Your task to perform on an android device: check the backup settings in the google photos Image 0: 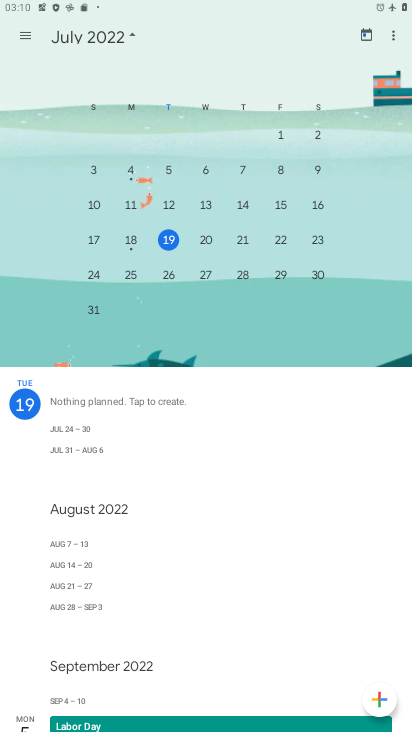
Step 0: press home button
Your task to perform on an android device: check the backup settings in the google photos Image 1: 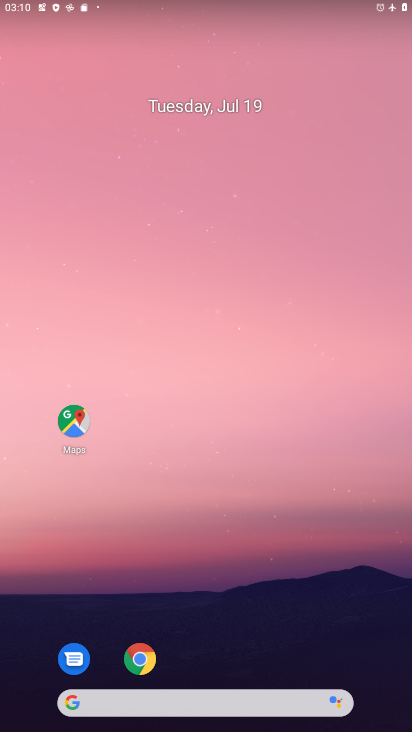
Step 1: drag from (277, 655) to (248, 90)
Your task to perform on an android device: check the backup settings in the google photos Image 2: 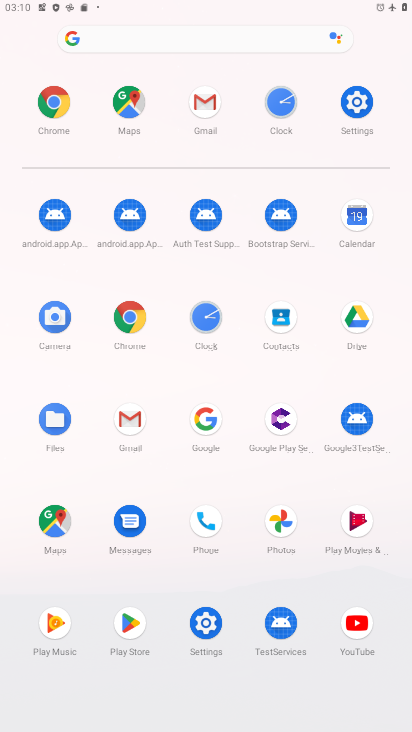
Step 2: click (281, 539)
Your task to perform on an android device: check the backup settings in the google photos Image 3: 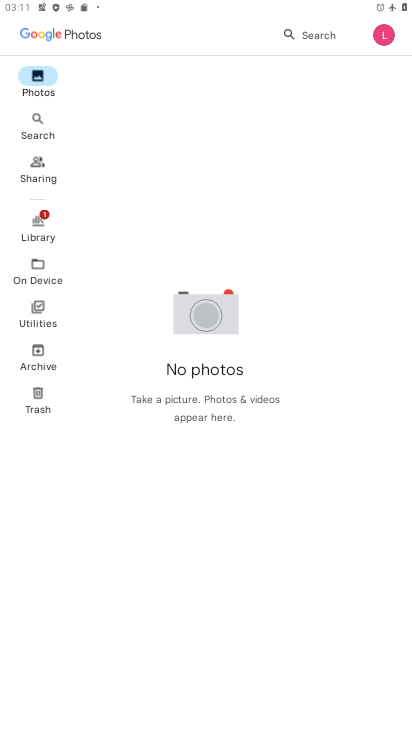
Step 3: click (373, 30)
Your task to perform on an android device: check the backup settings in the google photos Image 4: 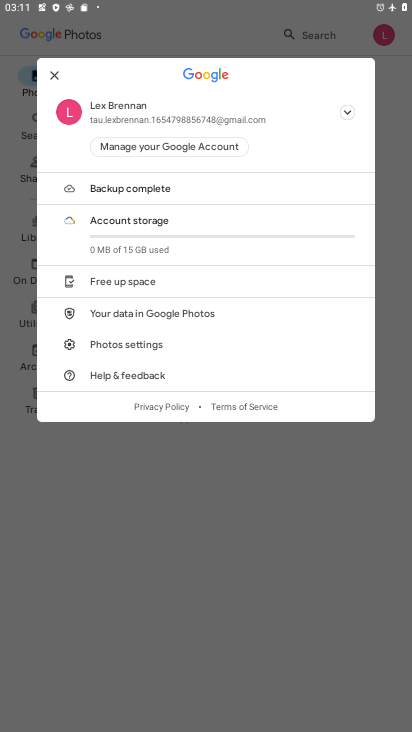
Step 4: click (122, 342)
Your task to perform on an android device: check the backup settings in the google photos Image 5: 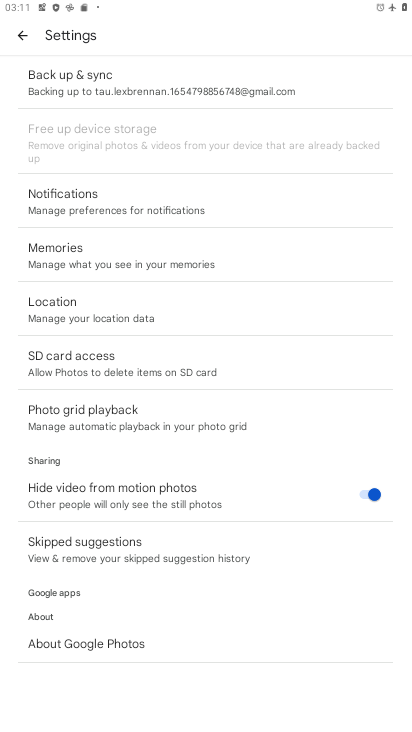
Step 5: click (76, 84)
Your task to perform on an android device: check the backup settings in the google photos Image 6: 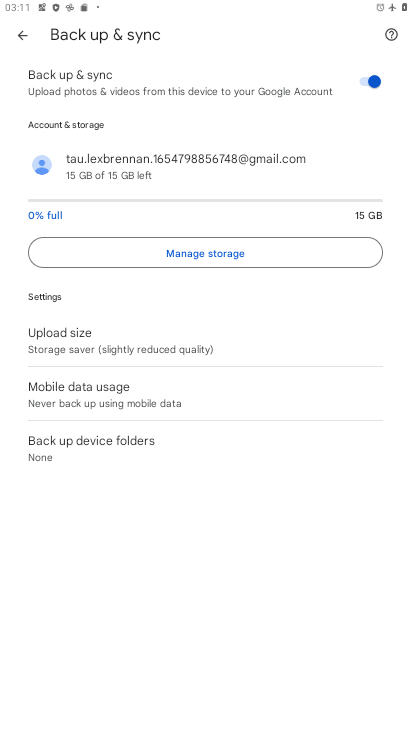
Step 6: task complete